Your task to perform on an android device: toggle notification dots Image 0: 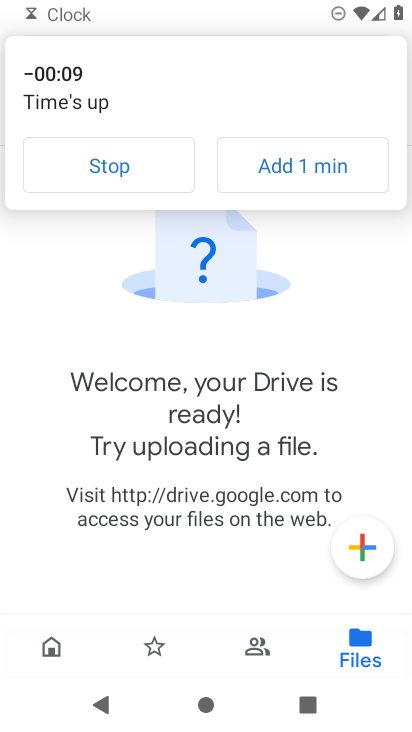
Step 0: press home button
Your task to perform on an android device: toggle notification dots Image 1: 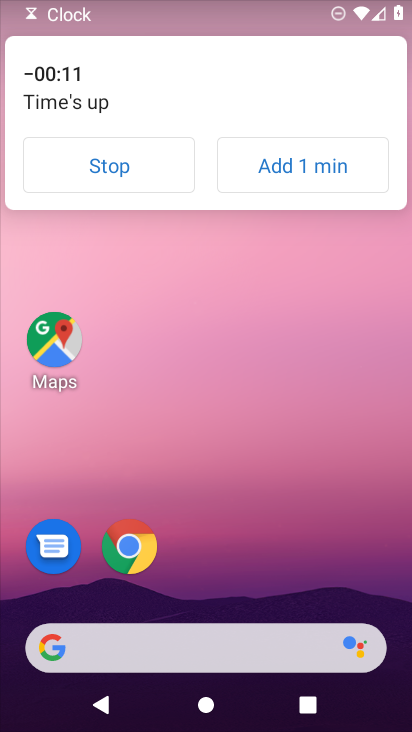
Step 1: drag from (213, 396) to (213, 46)
Your task to perform on an android device: toggle notification dots Image 2: 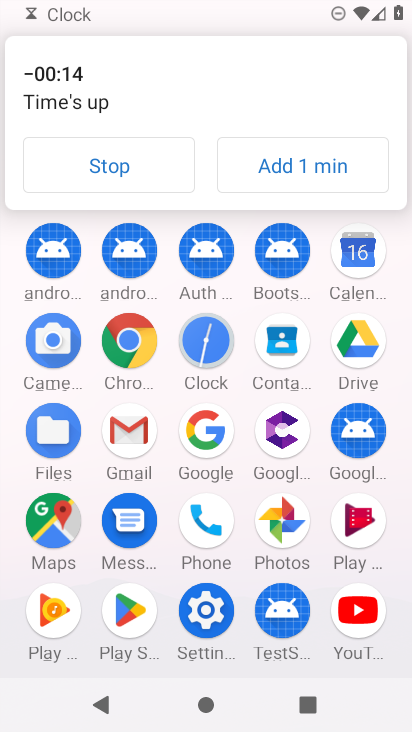
Step 2: click (206, 610)
Your task to perform on an android device: toggle notification dots Image 3: 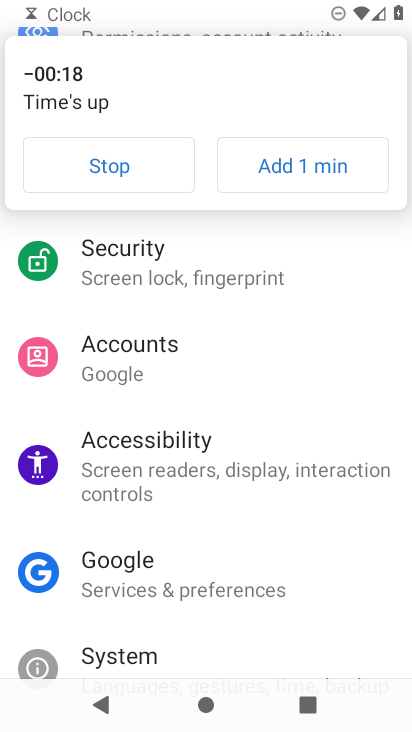
Step 3: click (96, 156)
Your task to perform on an android device: toggle notification dots Image 4: 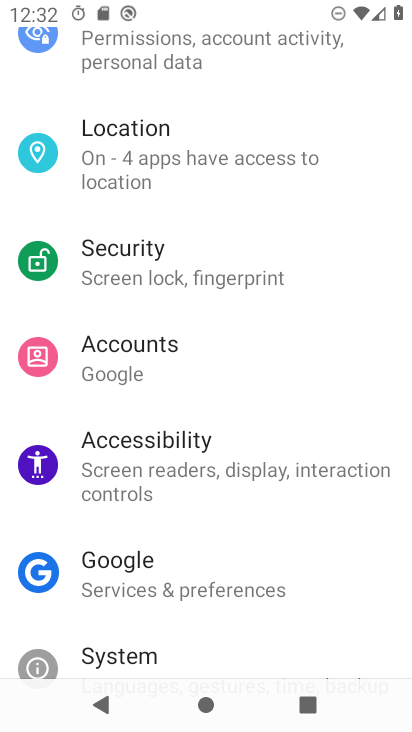
Step 4: drag from (158, 107) to (152, 555)
Your task to perform on an android device: toggle notification dots Image 5: 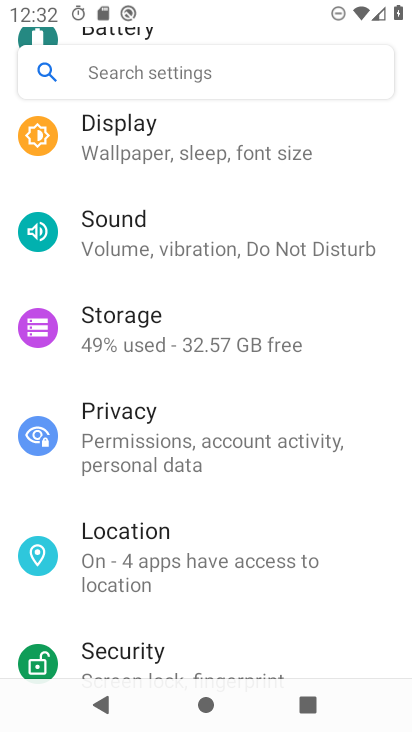
Step 5: drag from (166, 181) to (167, 552)
Your task to perform on an android device: toggle notification dots Image 6: 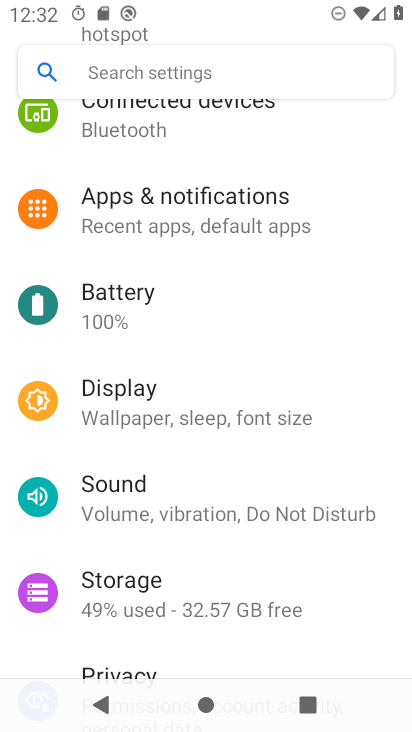
Step 6: click (191, 209)
Your task to perform on an android device: toggle notification dots Image 7: 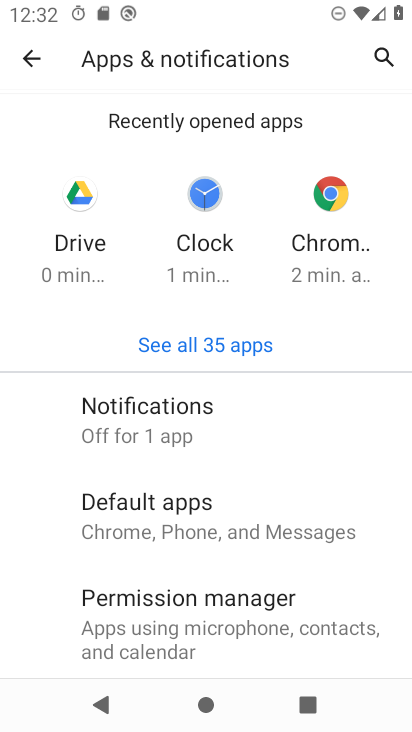
Step 7: click (126, 431)
Your task to perform on an android device: toggle notification dots Image 8: 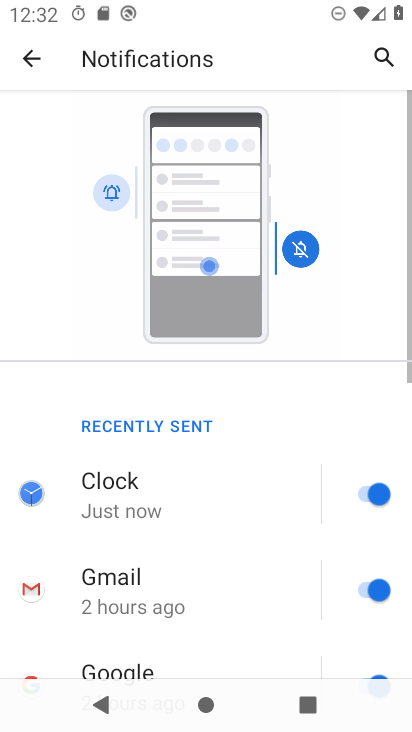
Step 8: drag from (183, 587) to (181, 295)
Your task to perform on an android device: toggle notification dots Image 9: 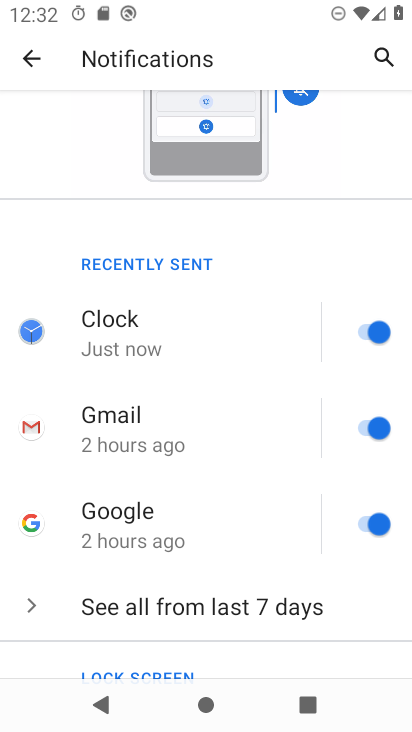
Step 9: drag from (230, 632) to (230, 362)
Your task to perform on an android device: toggle notification dots Image 10: 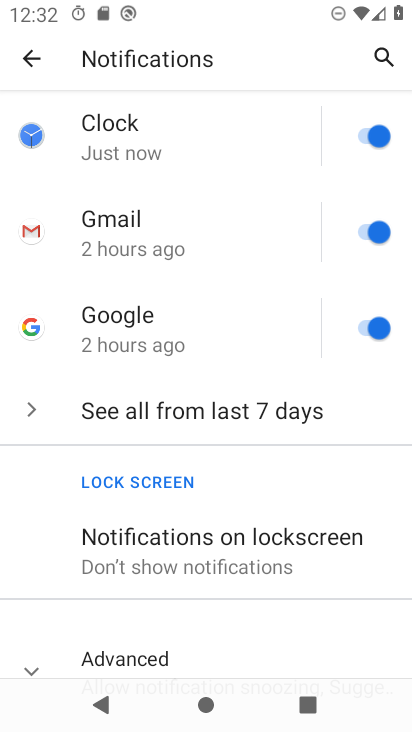
Step 10: drag from (240, 585) to (240, 371)
Your task to perform on an android device: toggle notification dots Image 11: 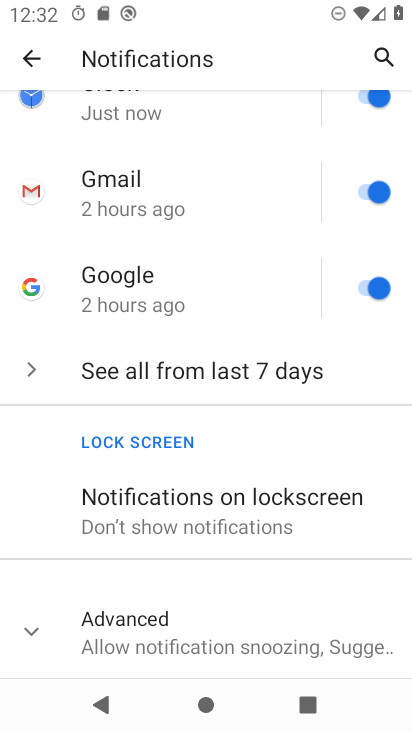
Step 11: click (182, 648)
Your task to perform on an android device: toggle notification dots Image 12: 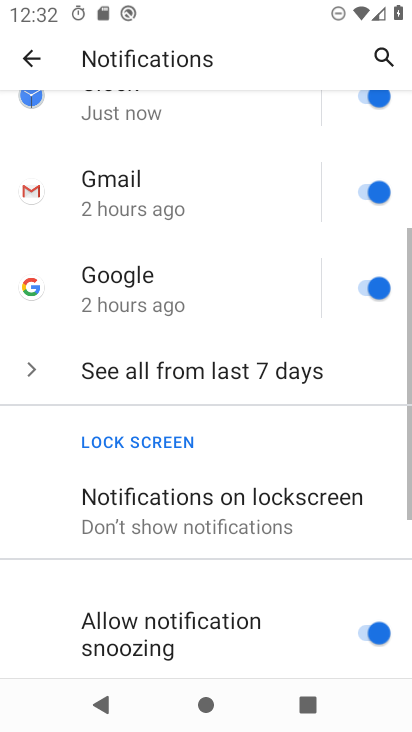
Step 12: drag from (249, 625) to (252, 299)
Your task to perform on an android device: toggle notification dots Image 13: 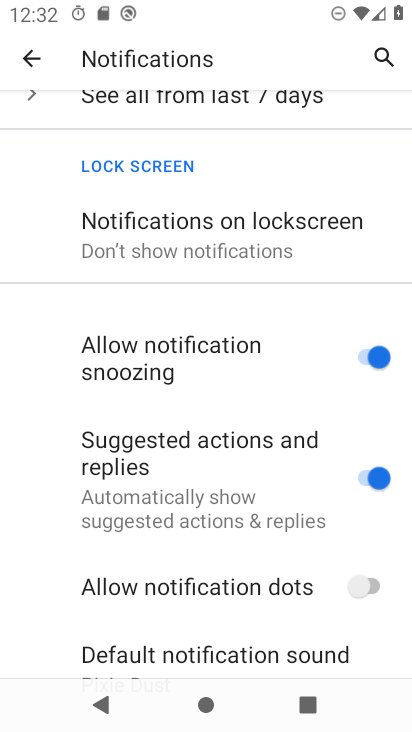
Step 13: click (368, 581)
Your task to perform on an android device: toggle notification dots Image 14: 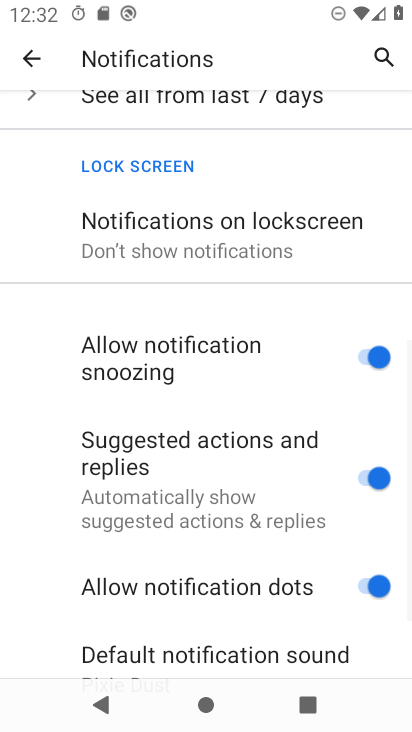
Step 14: task complete